Your task to perform on an android device: set an alarm Image 0: 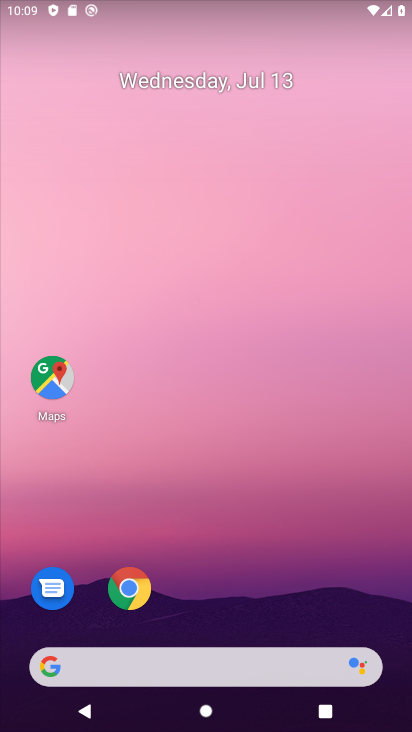
Step 0: drag from (213, 667) to (407, 104)
Your task to perform on an android device: set an alarm Image 1: 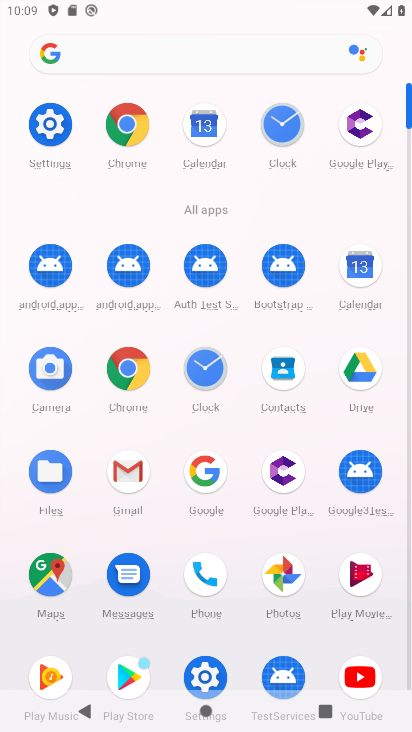
Step 1: click (221, 373)
Your task to perform on an android device: set an alarm Image 2: 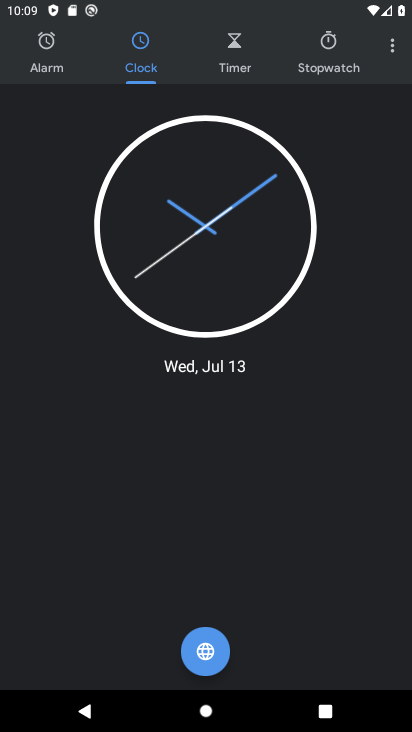
Step 2: click (46, 65)
Your task to perform on an android device: set an alarm Image 3: 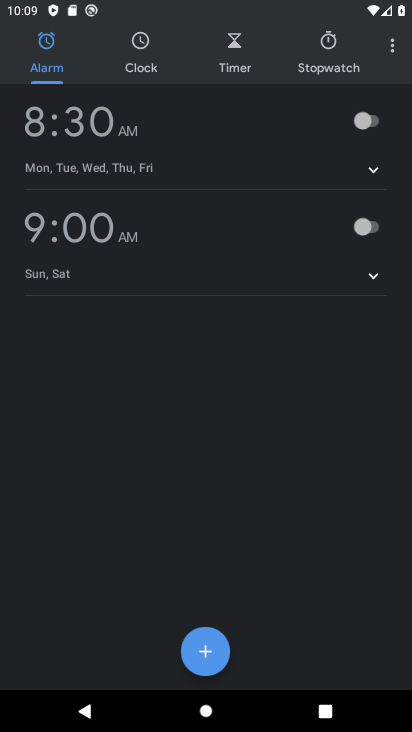
Step 3: click (392, 121)
Your task to perform on an android device: set an alarm Image 4: 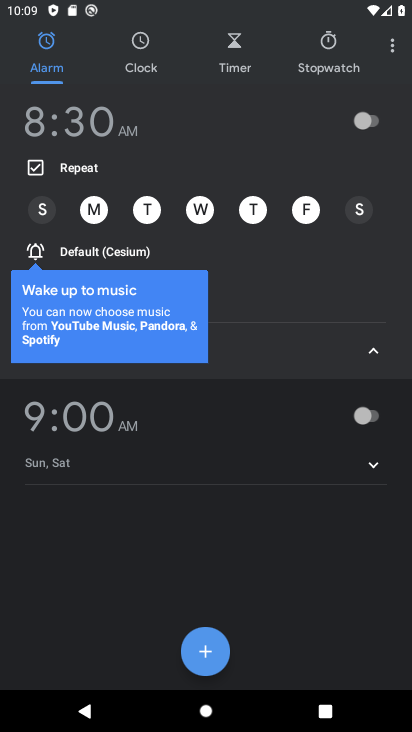
Step 4: click (387, 117)
Your task to perform on an android device: set an alarm Image 5: 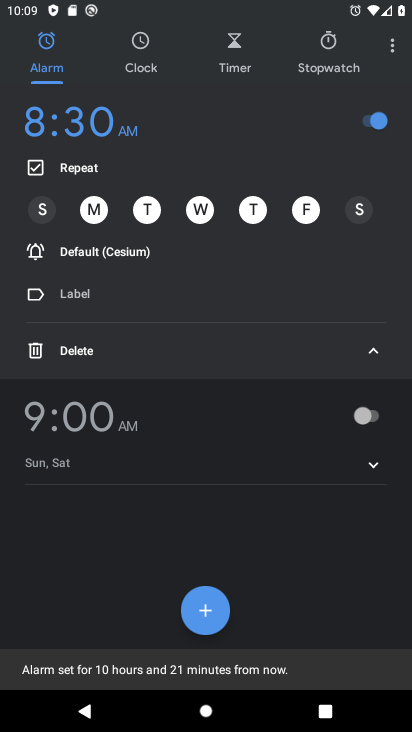
Step 5: task complete